Your task to perform on an android device: What's on my calendar tomorrow? Image 0: 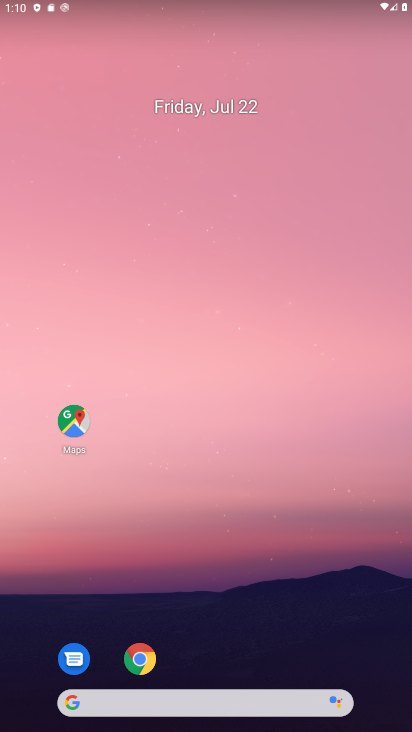
Step 0: drag from (309, 623) to (187, 70)
Your task to perform on an android device: What's on my calendar tomorrow? Image 1: 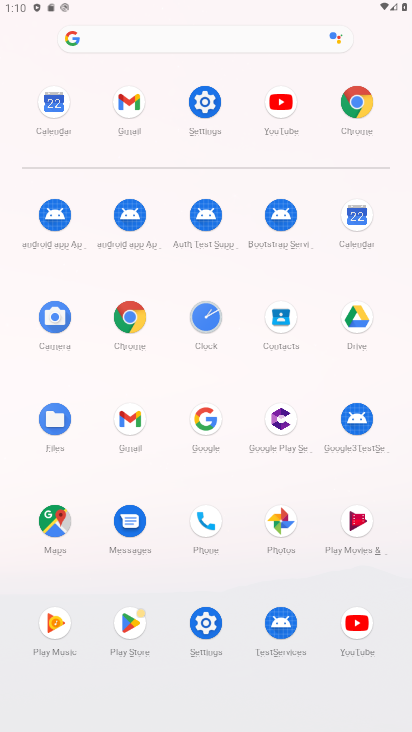
Step 1: click (68, 130)
Your task to perform on an android device: What's on my calendar tomorrow? Image 2: 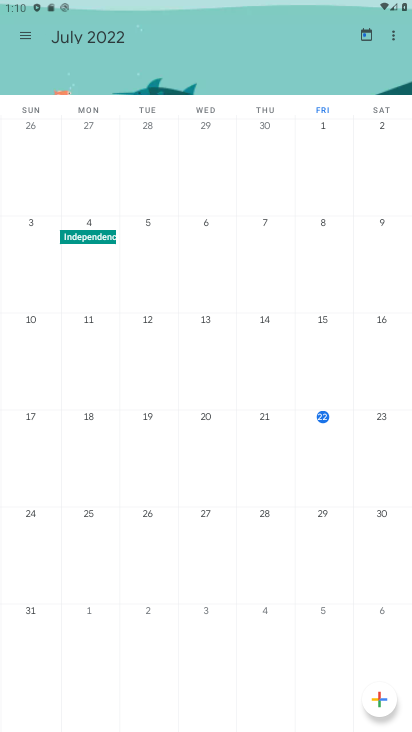
Step 2: task complete